Your task to perform on an android device: turn on priority inbox in the gmail app Image 0: 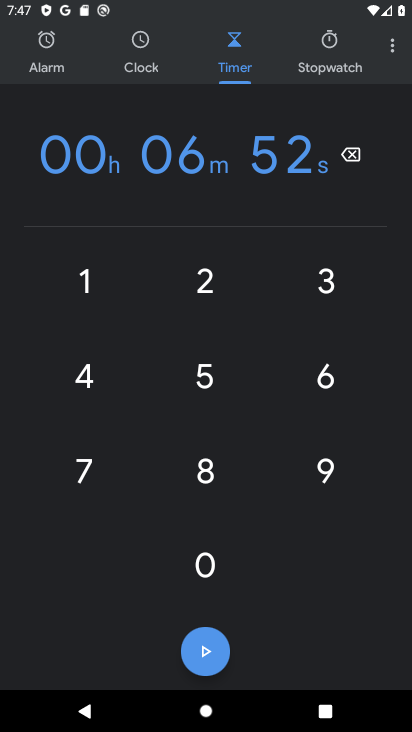
Step 0: press home button
Your task to perform on an android device: turn on priority inbox in the gmail app Image 1: 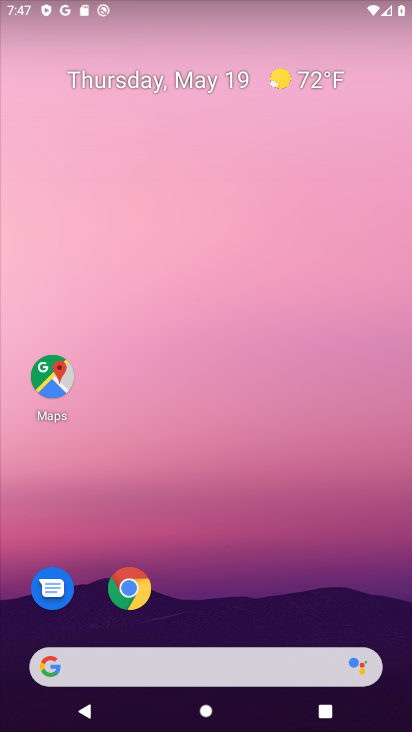
Step 1: drag from (278, 602) to (176, 0)
Your task to perform on an android device: turn on priority inbox in the gmail app Image 2: 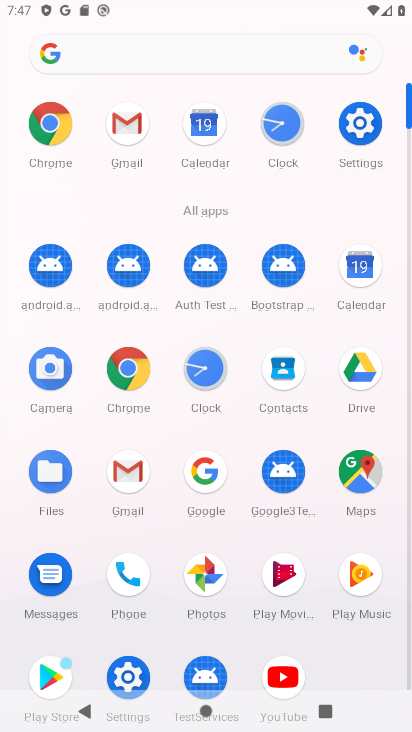
Step 2: click (131, 467)
Your task to perform on an android device: turn on priority inbox in the gmail app Image 3: 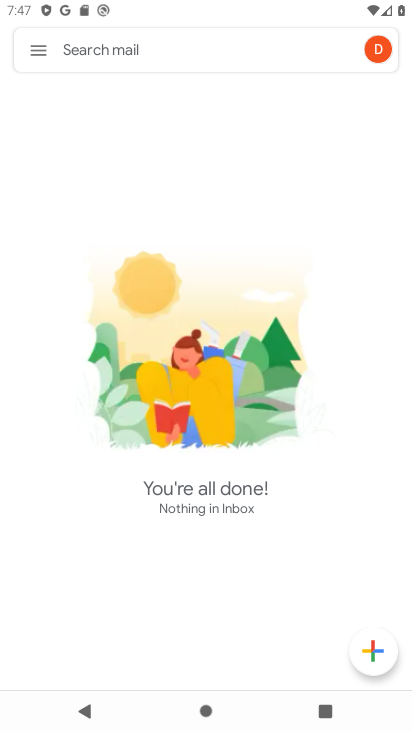
Step 3: click (32, 47)
Your task to perform on an android device: turn on priority inbox in the gmail app Image 4: 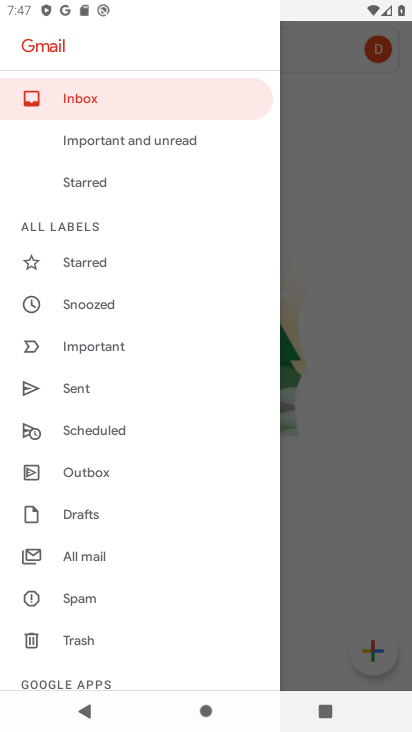
Step 4: drag from (180, 611) to (133, 277)
Your task to perform on an android device: turn on priority inbox in the gmail app Image 5: 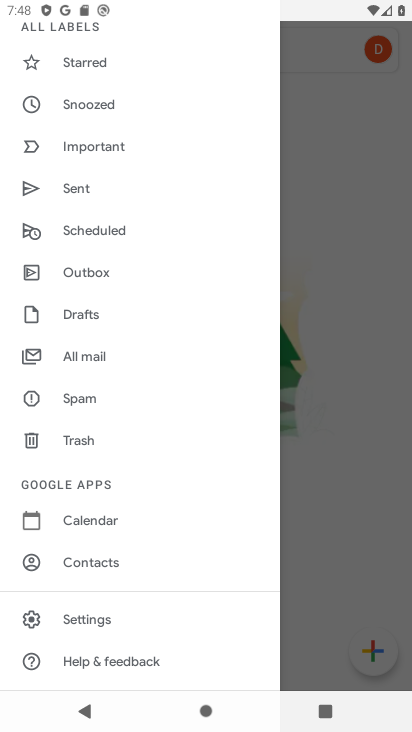
Step 5: click (90, 611)
Your task to perform on an android device: turn on priority inbox in the gmail app Image 6: 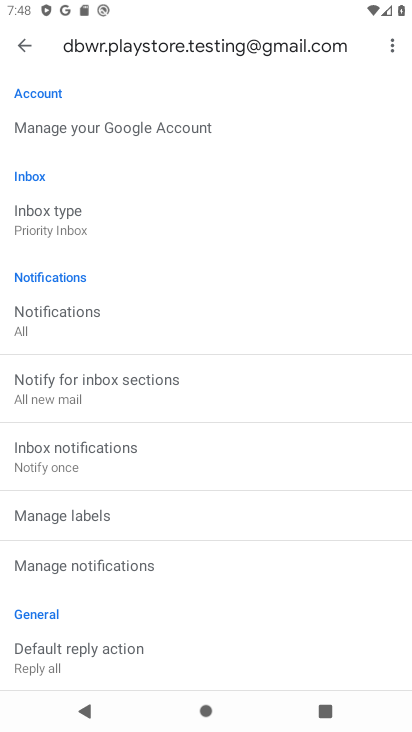
Step 6: click (79, 215)
Your task to perform on an android device: turn on priority inbox in the gmail app Image 7: 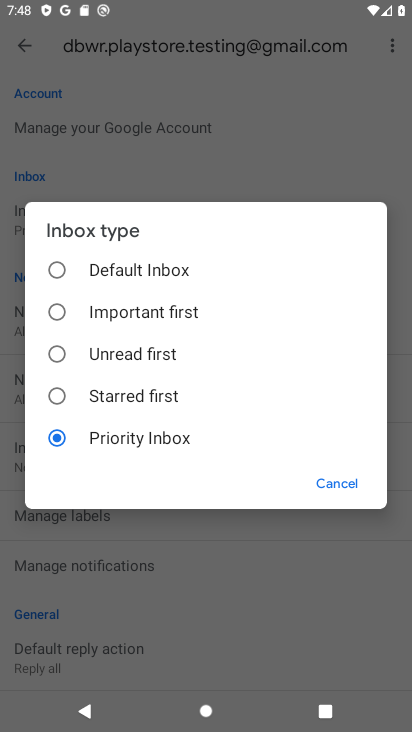
Step 7: task complete